Your task to perform on an android device: open chrome privacy settings Image 0: 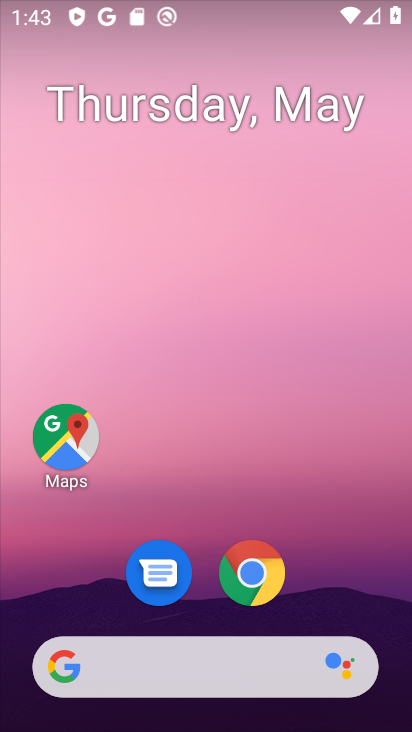
Step 0: click (260, 565)
Your task to perform on an android device: open chrome privacy settings Image 1: 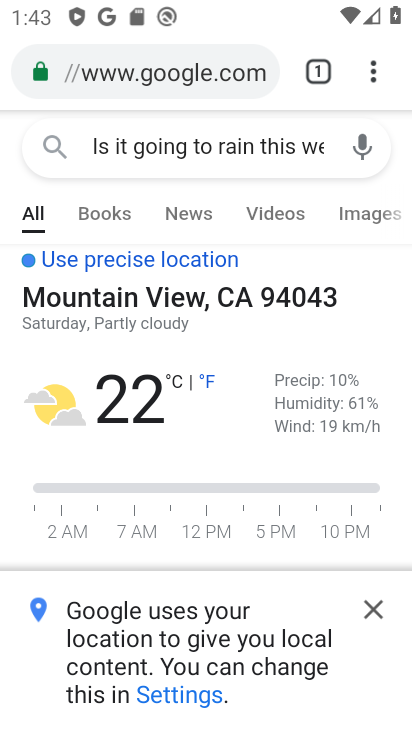
Step 1: click (374, 67)
Your task to perform on an android device: open chrome privacy settings Image 2: 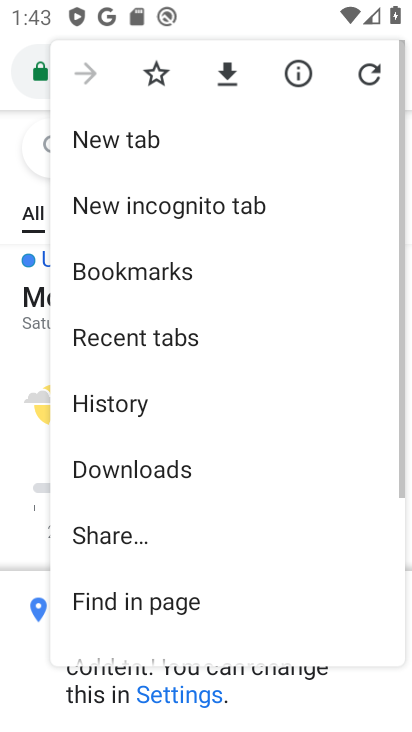
Step 2: drag from (197, 568) to (246, 278)
Your task to perform on an android device: open chrome privacy settings Image 3: 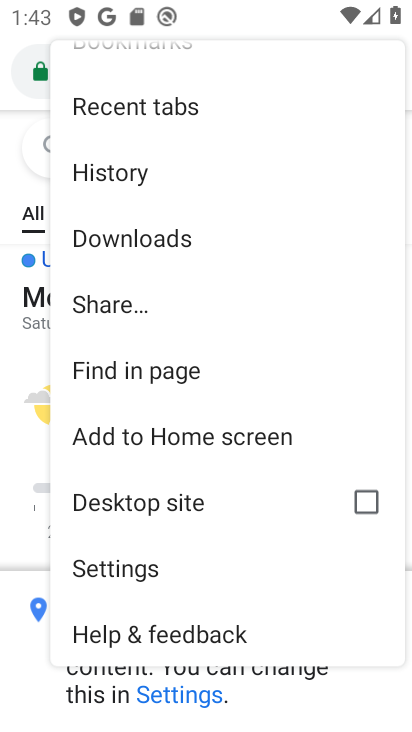
Step 3: click (159, 575)
Your task to perform on an android device: open chrome privacy settings Image 4: 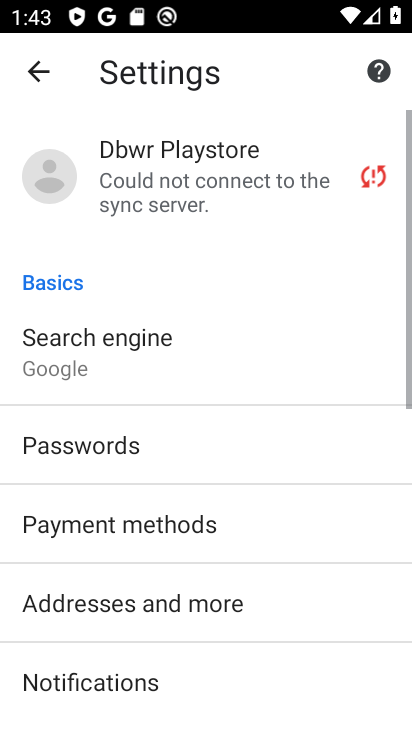
Step 4: drag from (191, 578) to (234, 313)
Your task to perform on an android device: open chrome privacy settings Image 5: 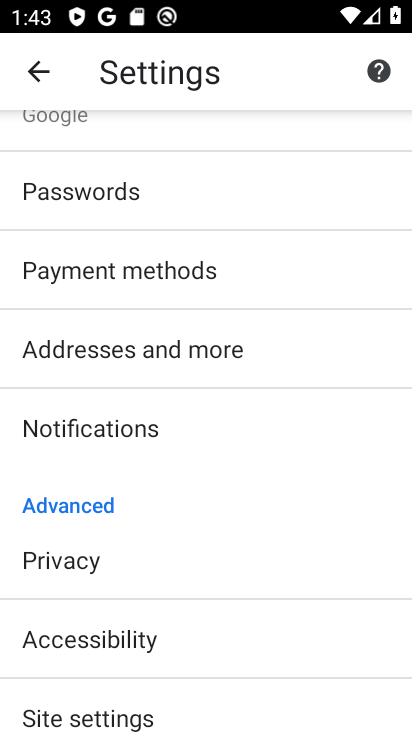
Step 5: click (113, 555)
Your task to perform on an android device: open chrome privacy settings Image 6: 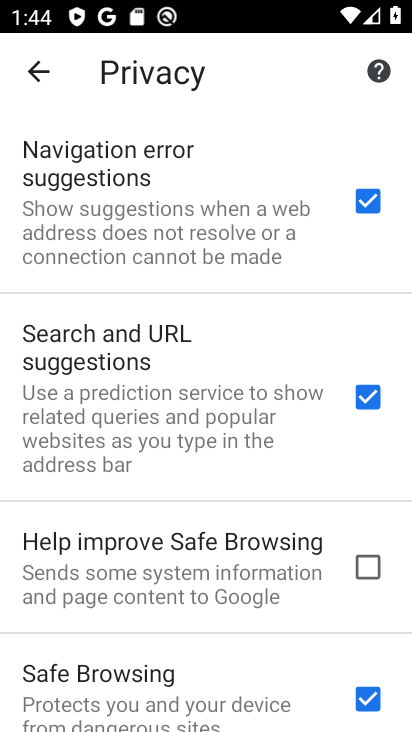
Step 6: task complete